Your task to perform on an android device: Show me popular videos on Youtube Image 0: 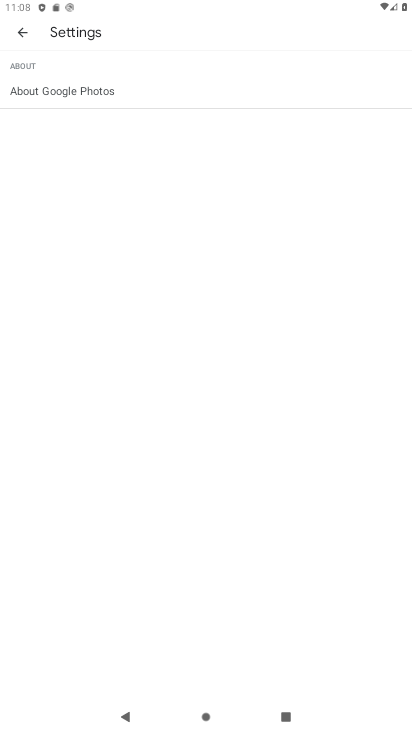
Step 0: press home button
Your task to perform on an android device: Show me popular videos on Youtube Image 1: 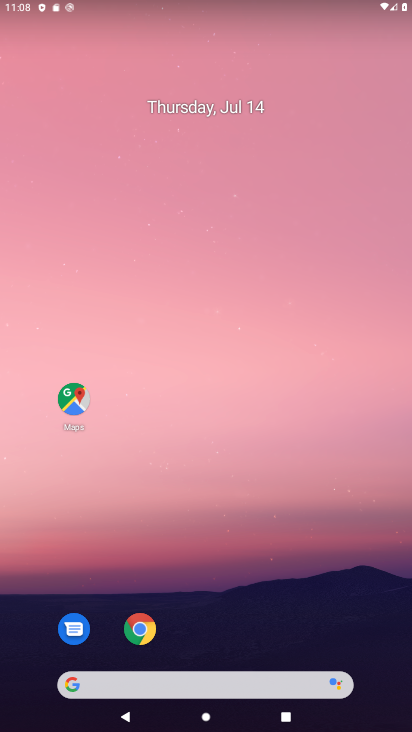
Step 1: drag from (286, 542) to (331, 0)
Your task to perform on an android device: Show me popular videos on Youtube Image 2: 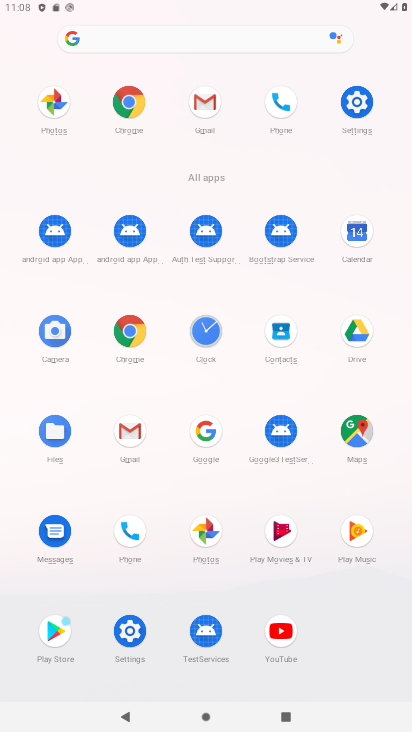
Step 2: click (288, 635)
Your task to perform on an android device: Show me popular videos on Youtube Image 3: 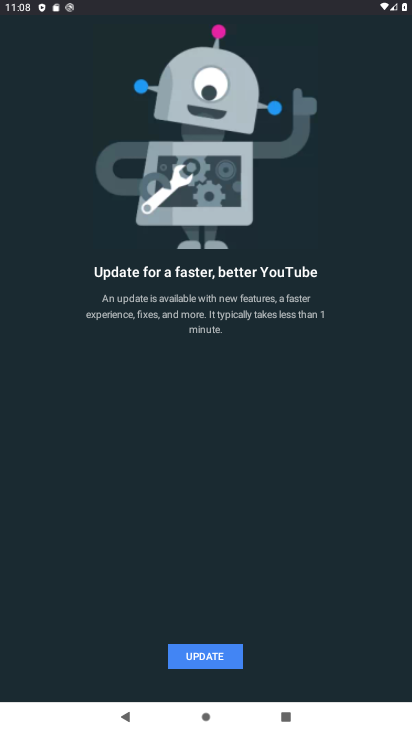
Step 3: click (232, 663)
Your task to perform on an android device: Show me popular videos on Youtube Image 4: 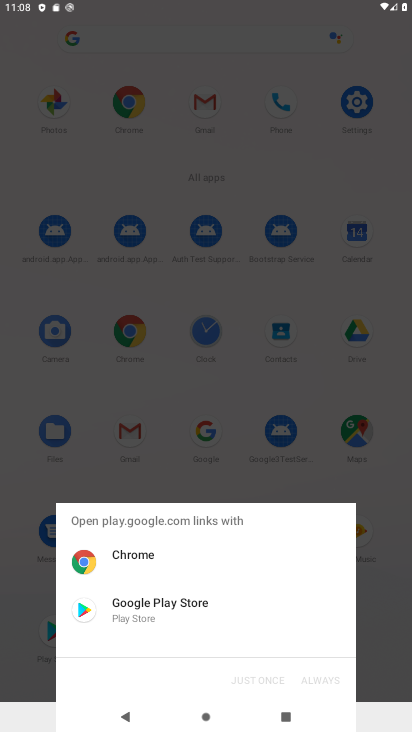
Step 4: click (208, 613)
Your task to perform on an android device: Show me popular videos on Youtube Image 5: 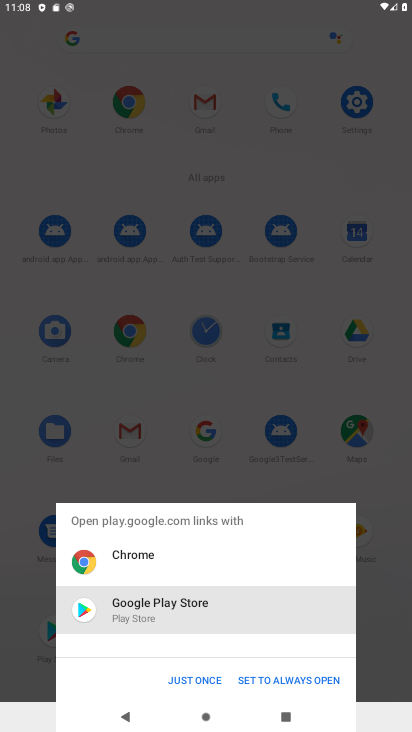
Step 5: click (191, 691)
Your task to perform on an android device: Show me popular videos on Youtube Image 6: 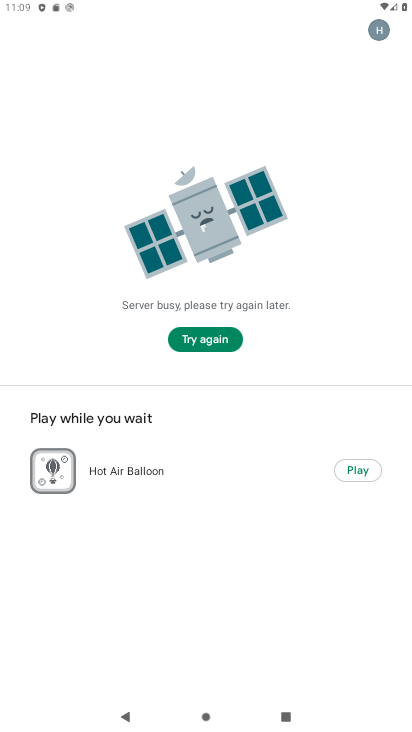
Step 6: click (197, 335)
Your task to perform on an android device: Show me popular videos on Youtube Image 7: 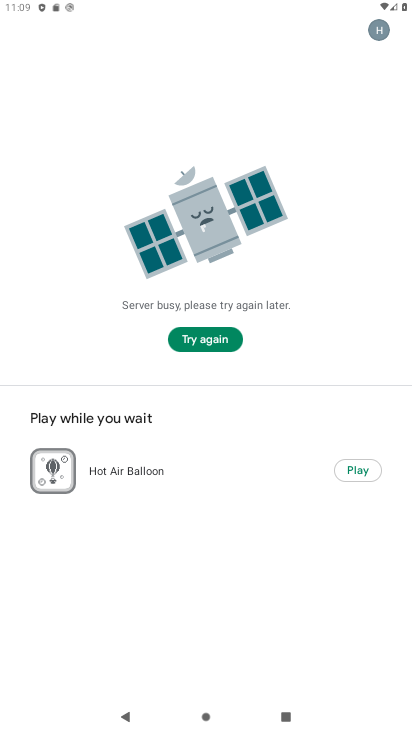
Step 7: task complete